Your task to perform on an android device: turn pop-ups off in chrome Image 0: 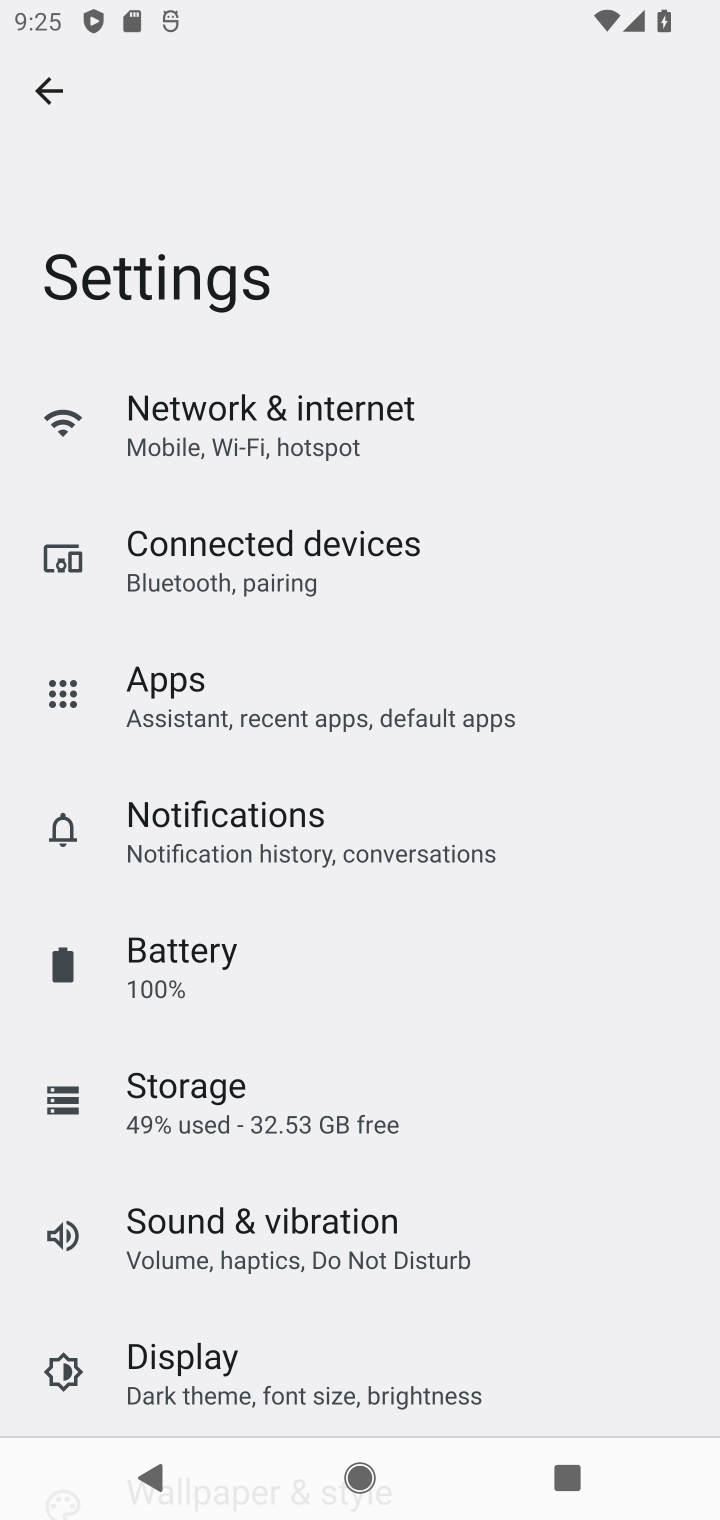
Step 0: press home button
Your task to perform on an android device: turn pop-ups off in chrome Image 1: 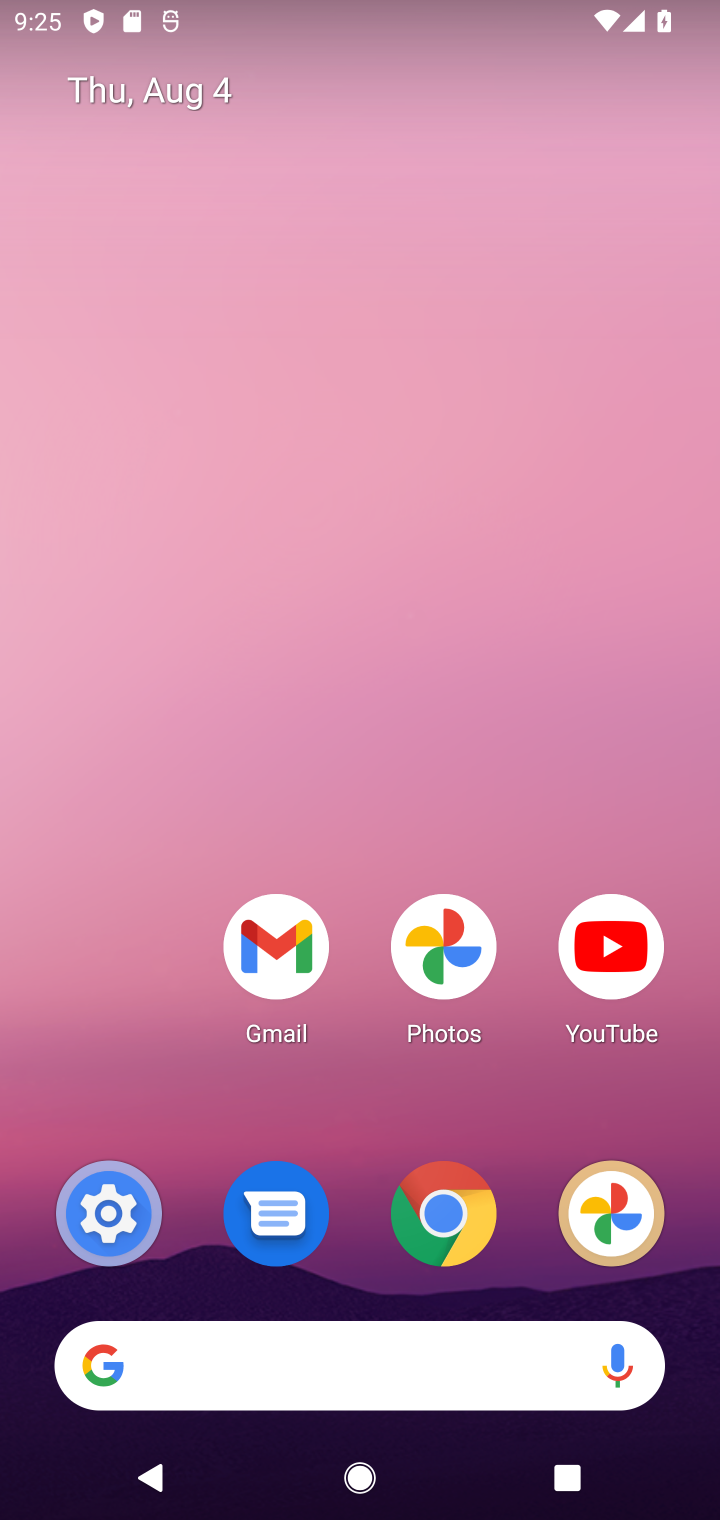
Step 1: click (448, 1207)
Your task to perform on an android device: turn pop-ups off in chrome Image 2: 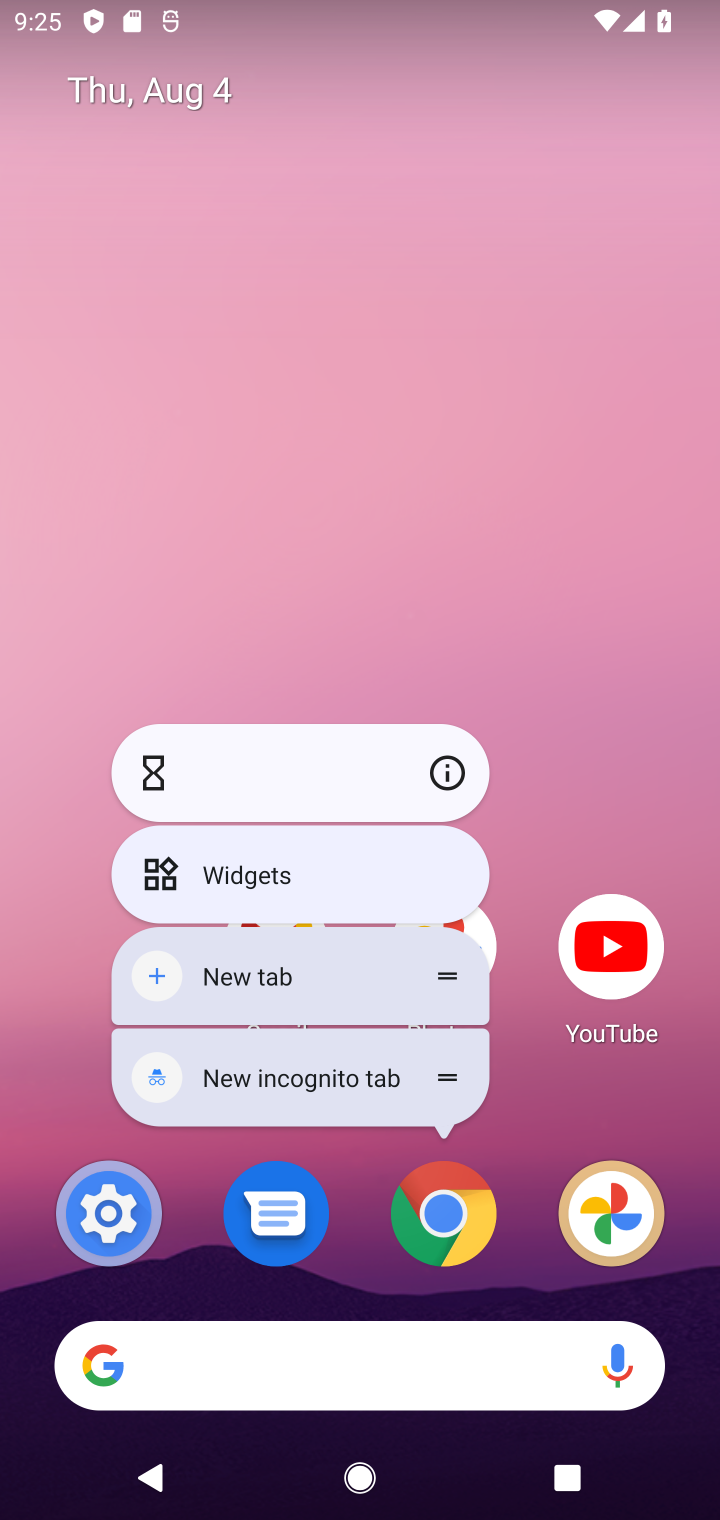
Step 2: click (439, 1204)
Your task to perform on an android device: turn pop-ups off in chrome Image 3: 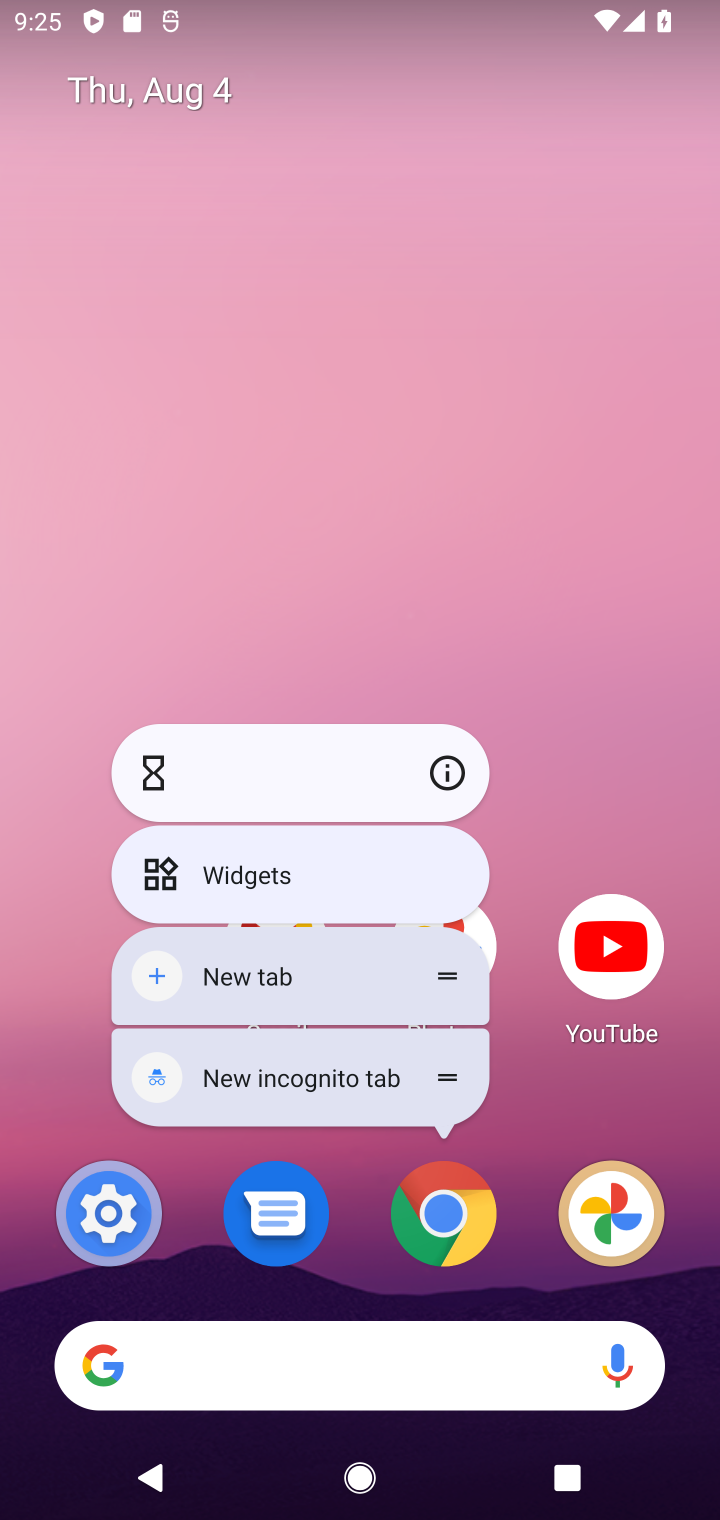
Step 3: click (439, 1204)
Your task to perform on an android device: turn pop-ups off in chrome Image 4: 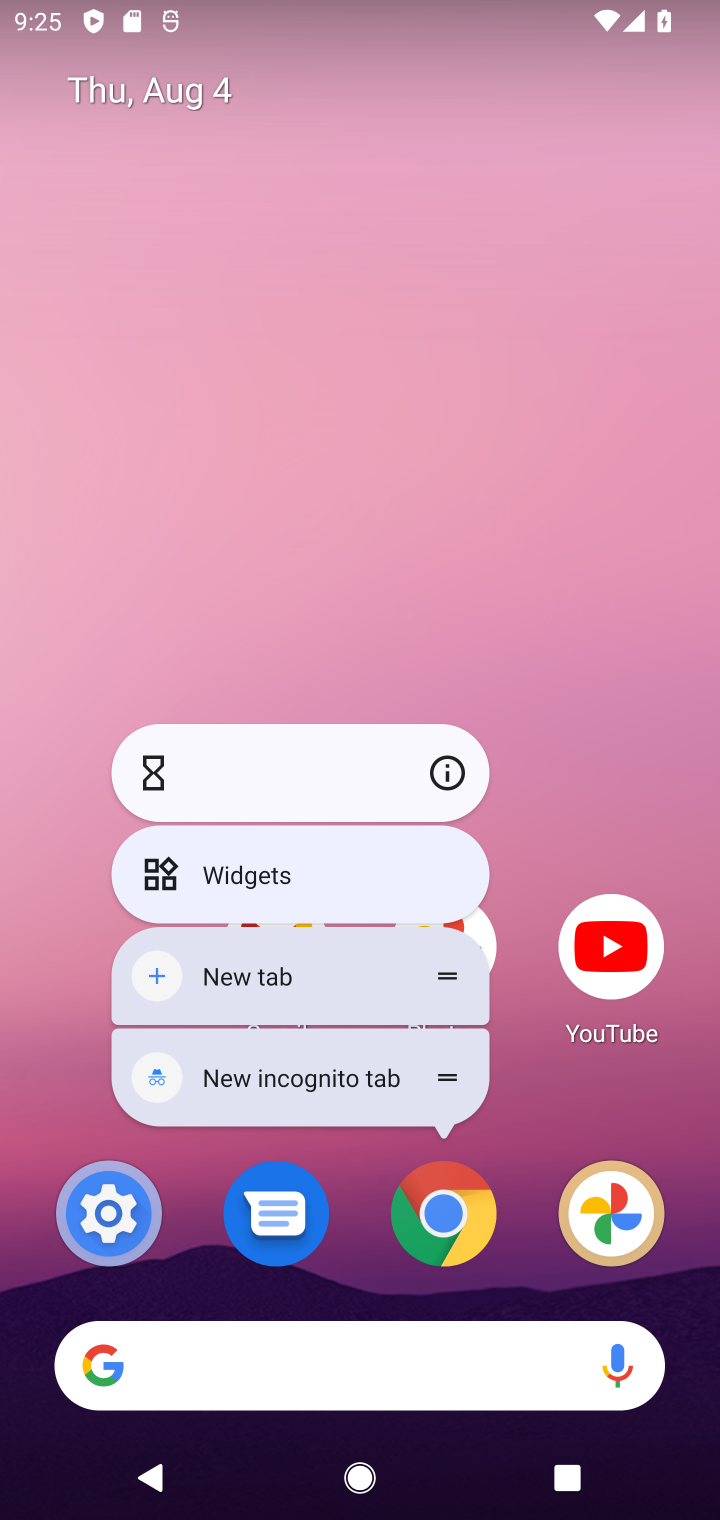
Step 4: click (439, 1198)
Your task to perform on an android device: turn pop-ups off in chrome Image 5: 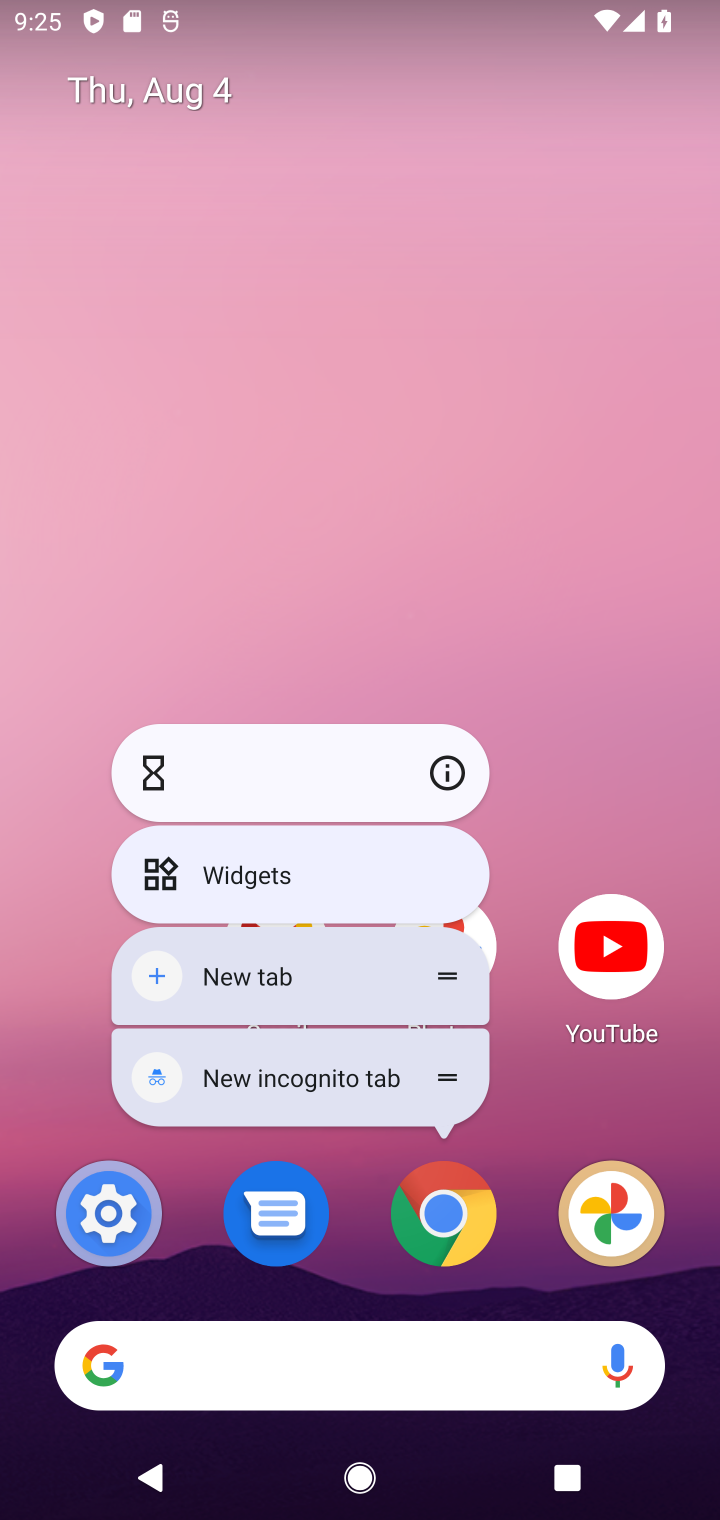
Step 5: click (454, 1199)
Your task to perform on an android device: turn pop-ups off in chrome Image 6: 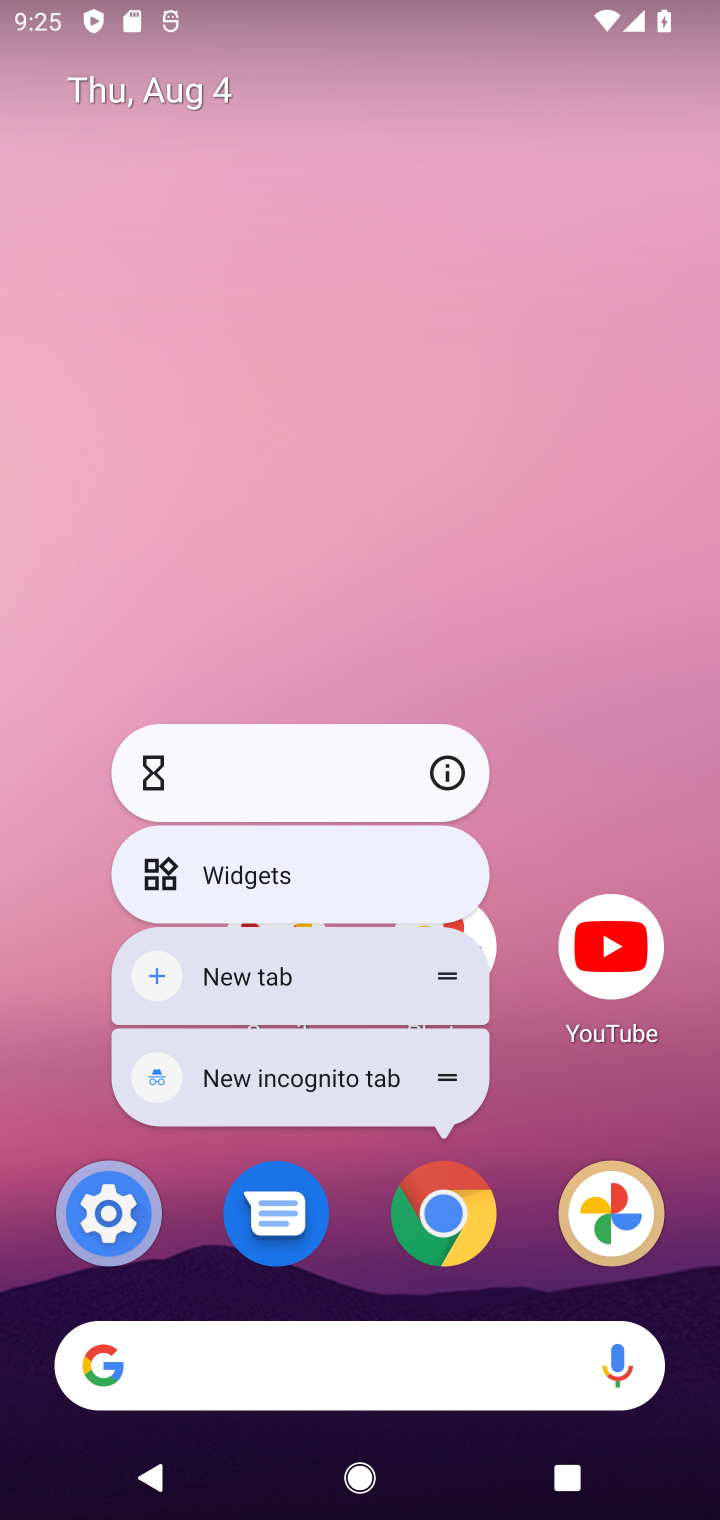
Step 6: click (442, 1218)
Your task to perform on an android device: turn pop-ups off in chrome Image 7: 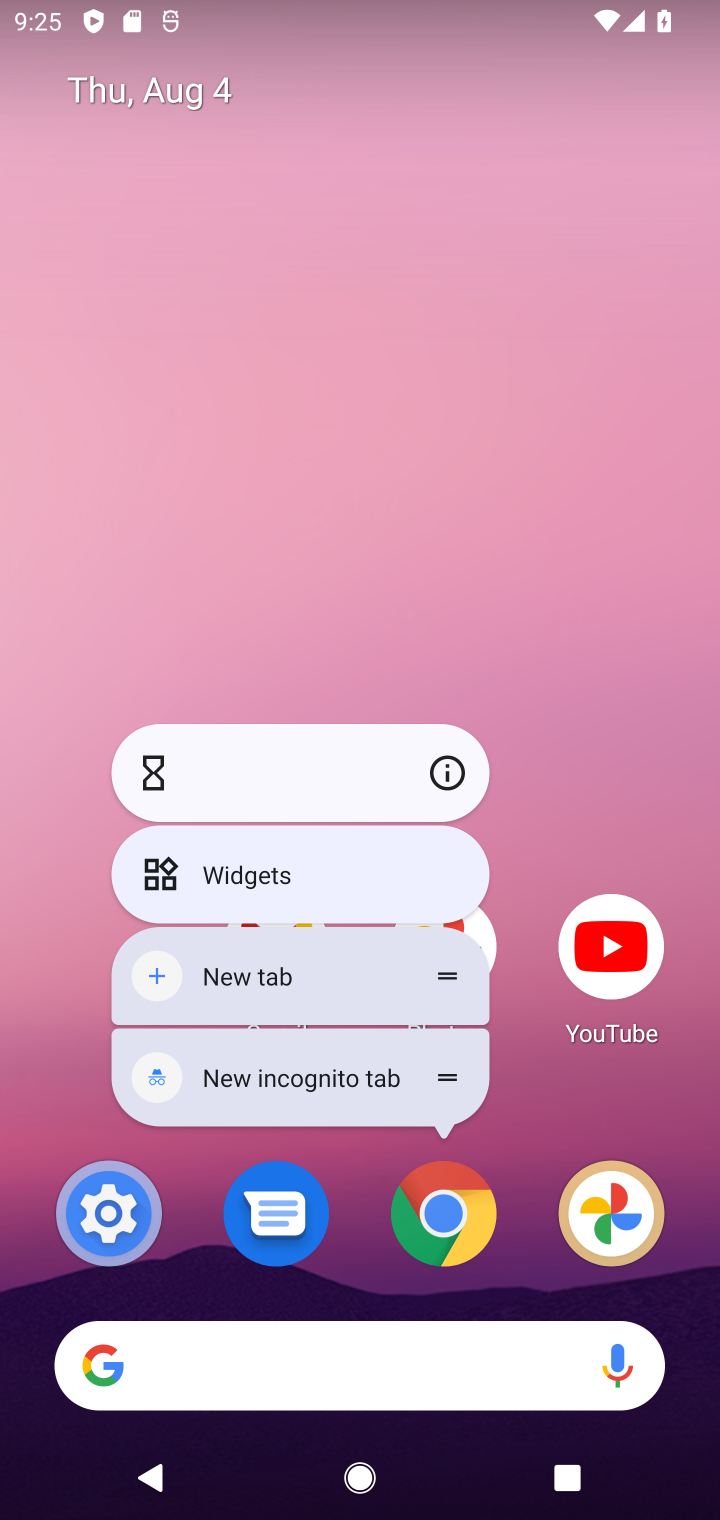
Step 7: drag from (522, 873) to (542, 10)
Your task to perform on an android device: turn pop-ups off in chrome Image 8: 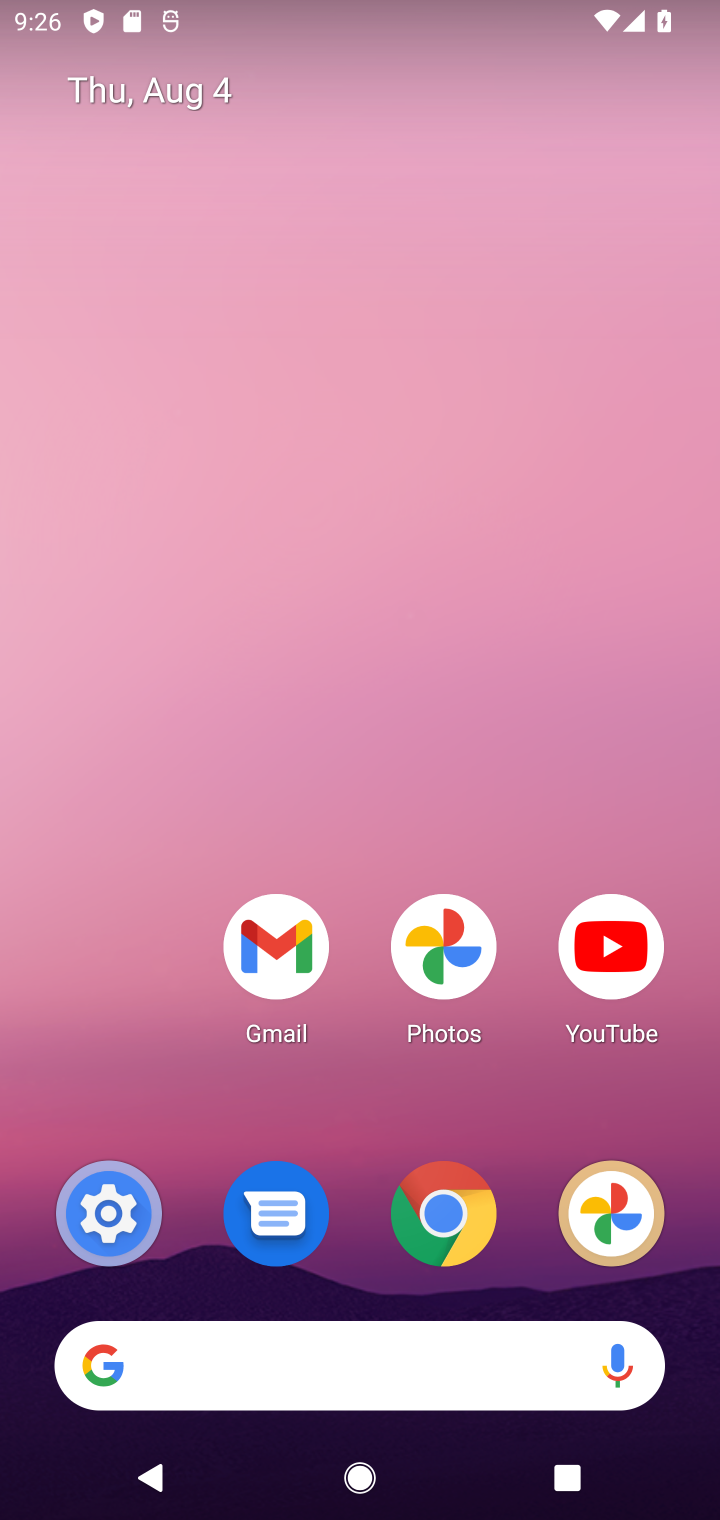
Step 8: drag from (519, 1075) to (490, 34)
Your task to perform on an android device: turn pop-ups off in chrome Image 9: 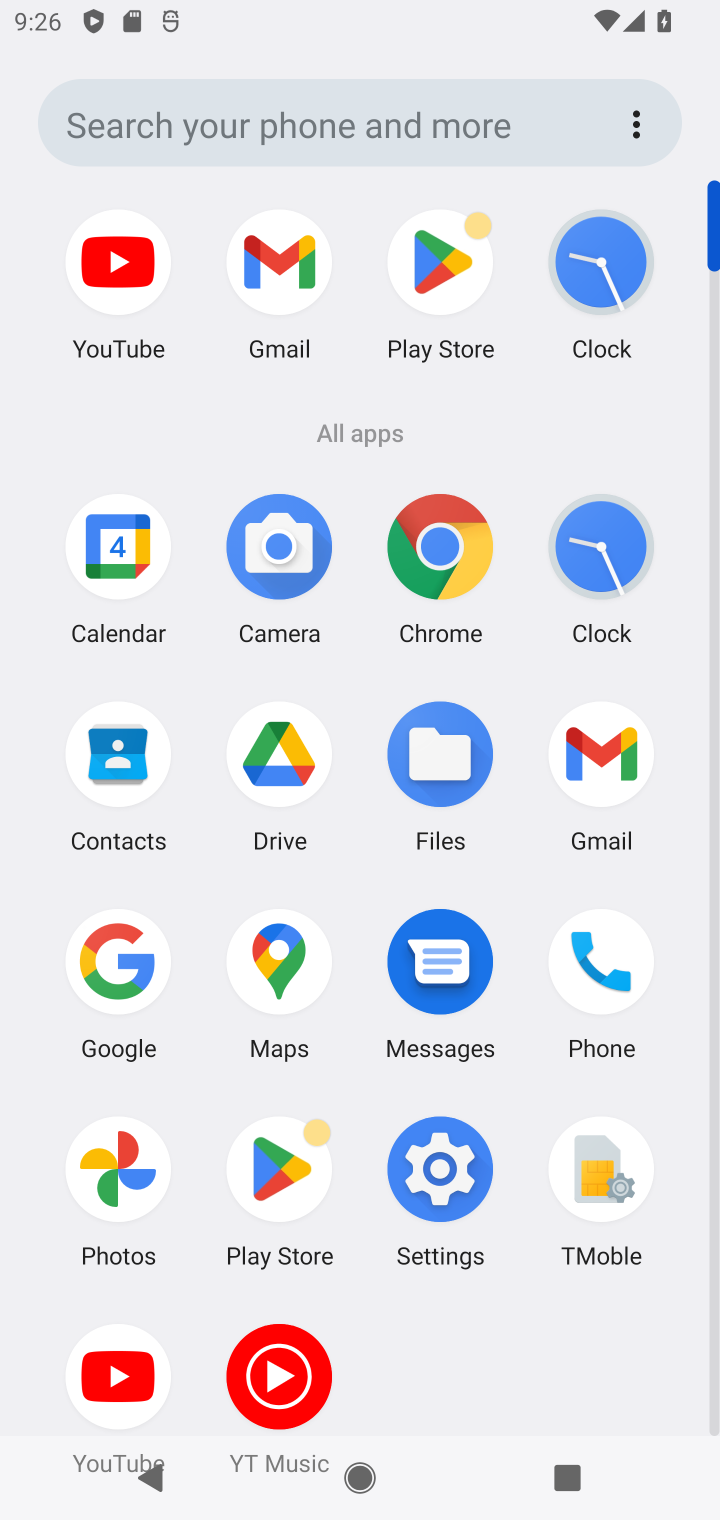
Step 9: click (436, 541)
Your task to perform on an android device: turn pop-ups off in chrome Image 10: 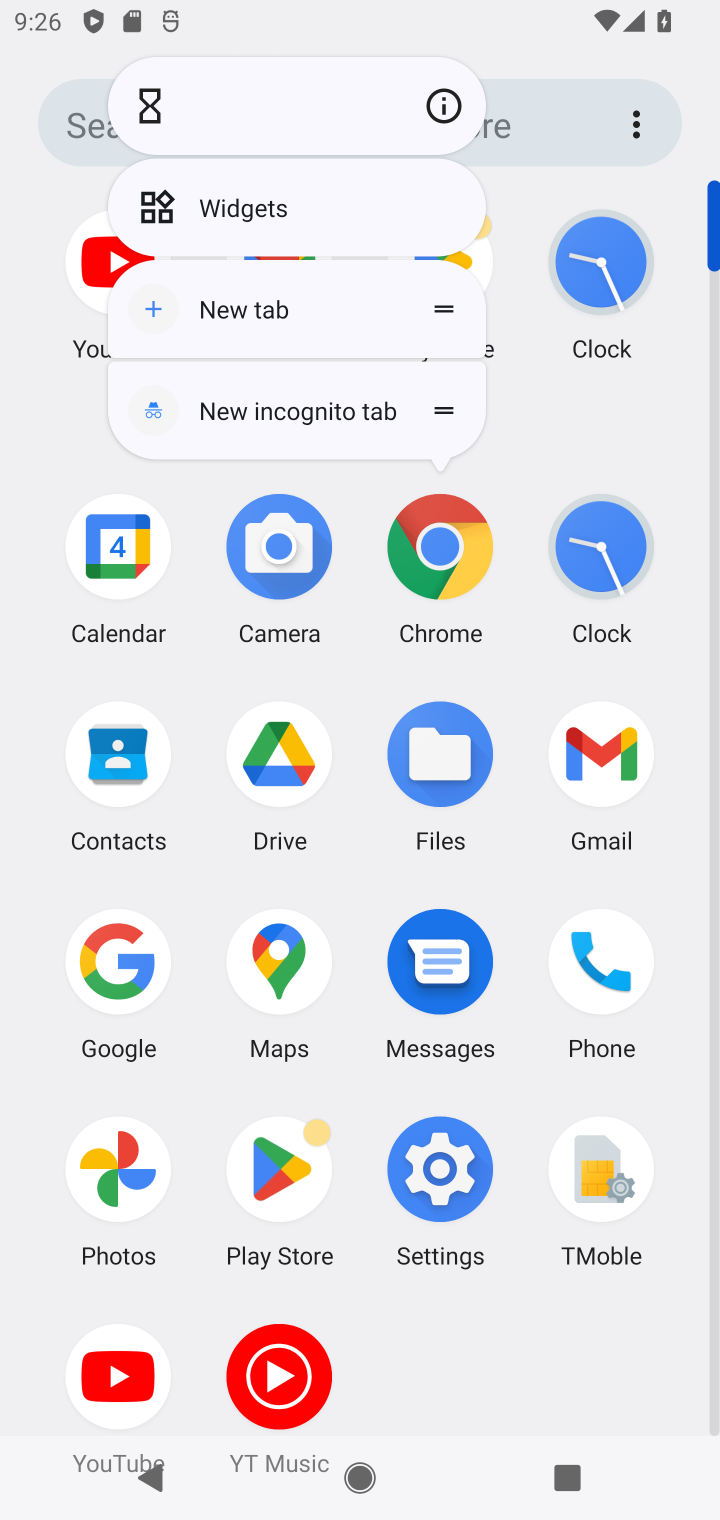
Step 10: click (440, 558)
Your task to perform on an android device: turn pop-ups off in chrome Image 11: 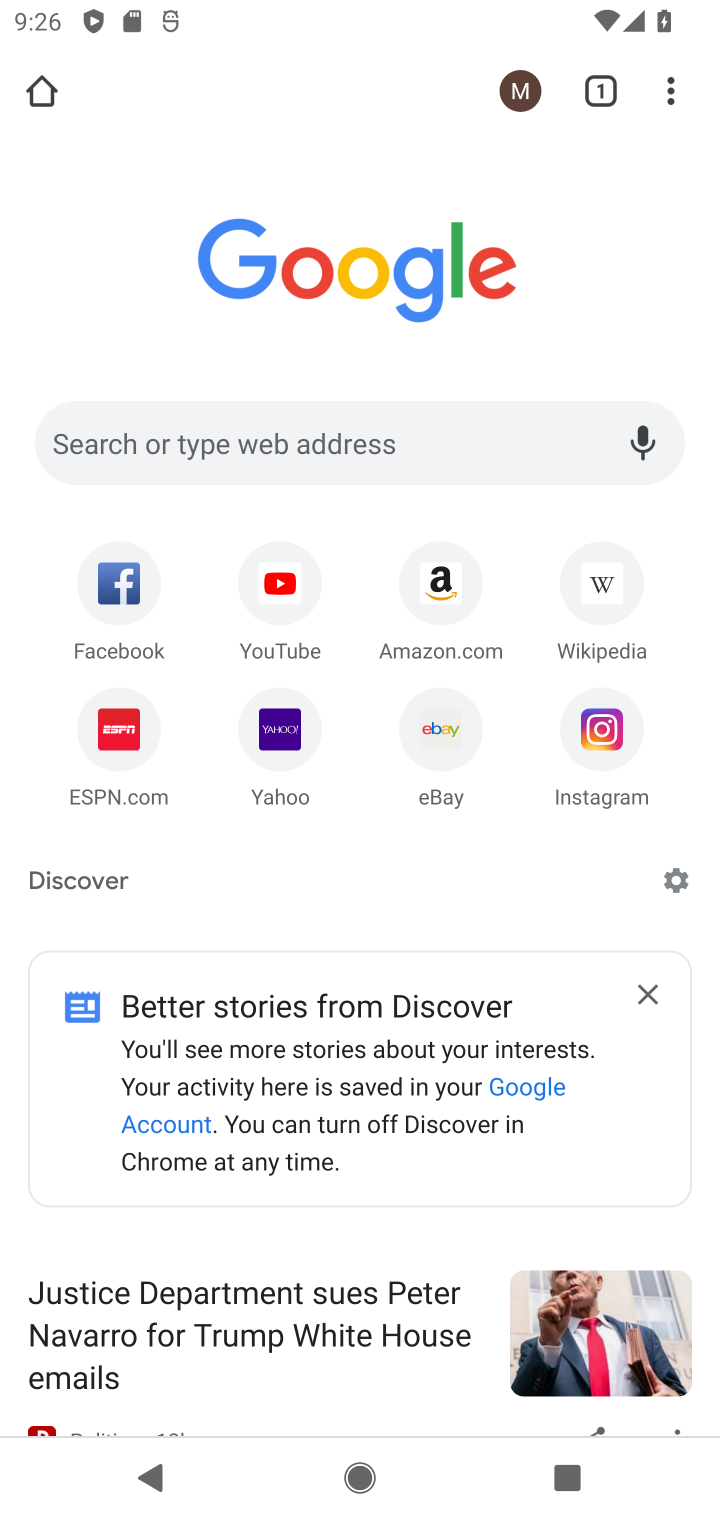
Step 11: click (665, 80)
Your task to perform on an android device: turn pop-ups off in chrome Image 12: 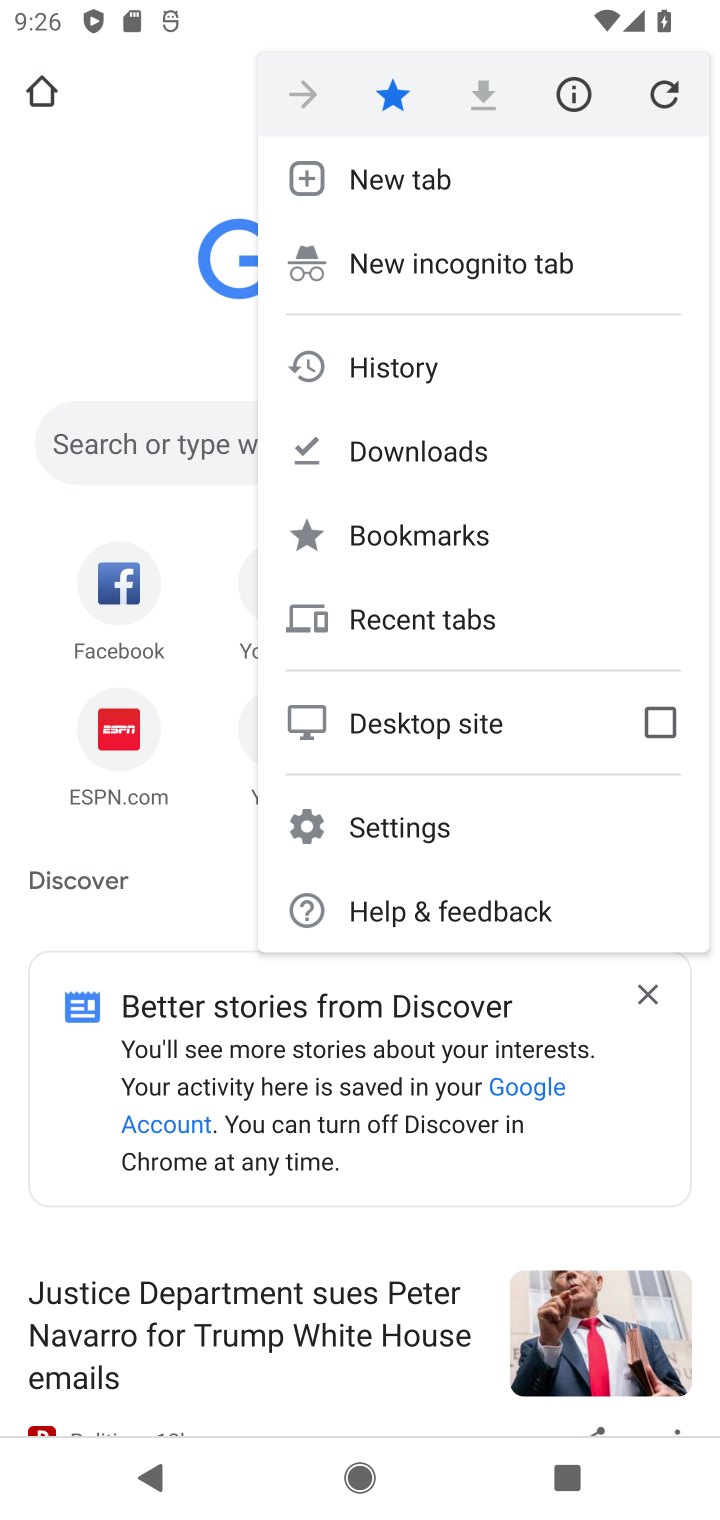
Step 12: click (467, 817)
Your task to perform on an android device: turn pop-ups off in chrome Image 13: 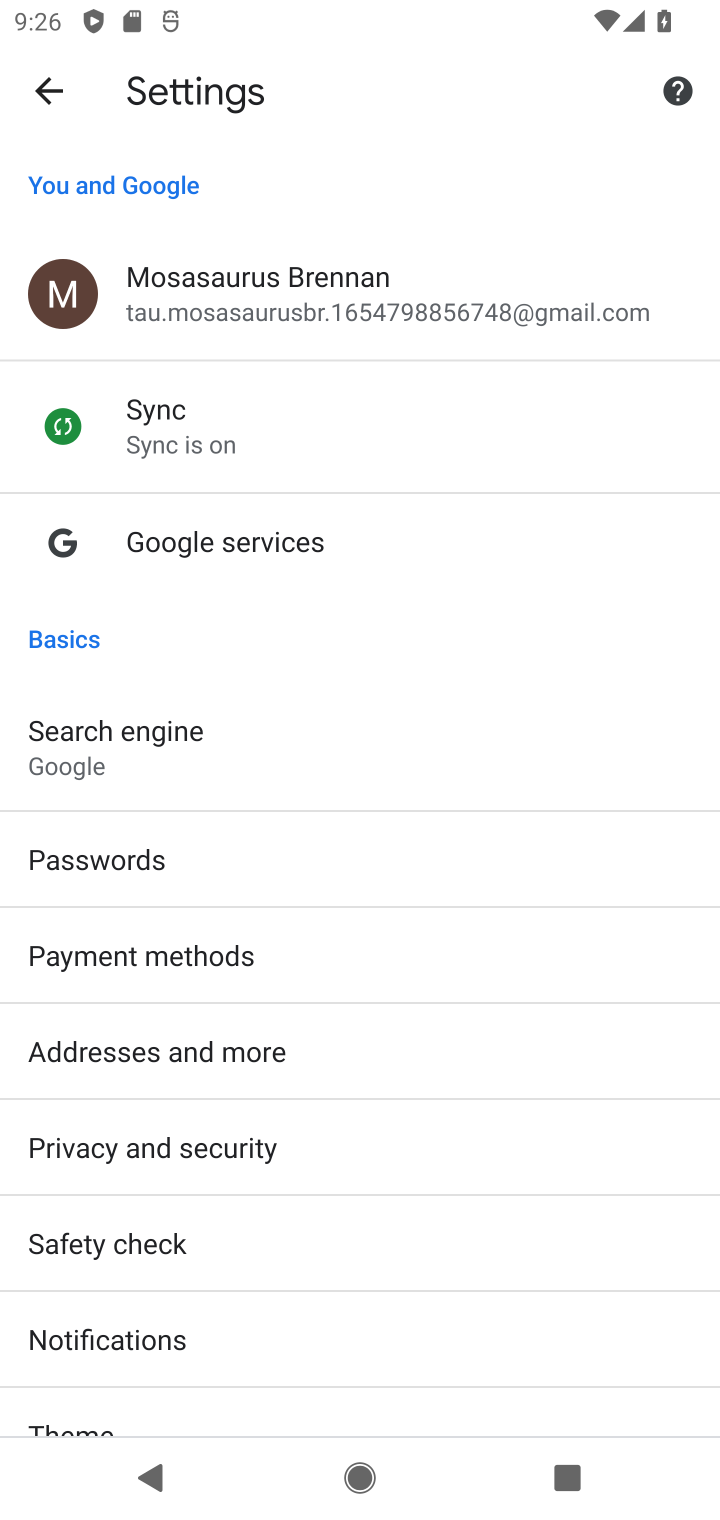
Step 13: drag from (241, 1317) to (334, 441)
Your task to perform on an android device: turn pop-ups off in chrome Image 14: 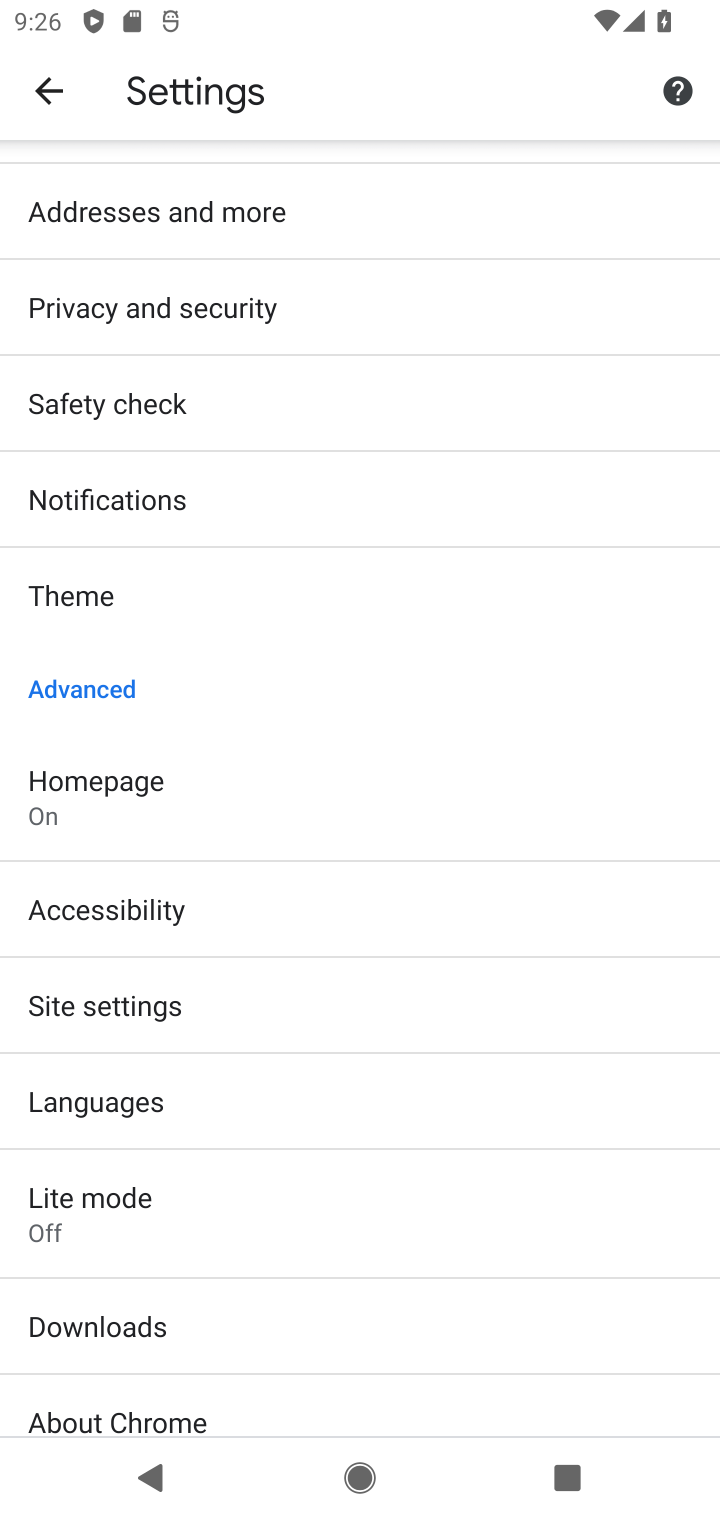
Step 14: click (221, 997)
Your task to perform on an android device: turn pop-ups off in chrome Image 15: 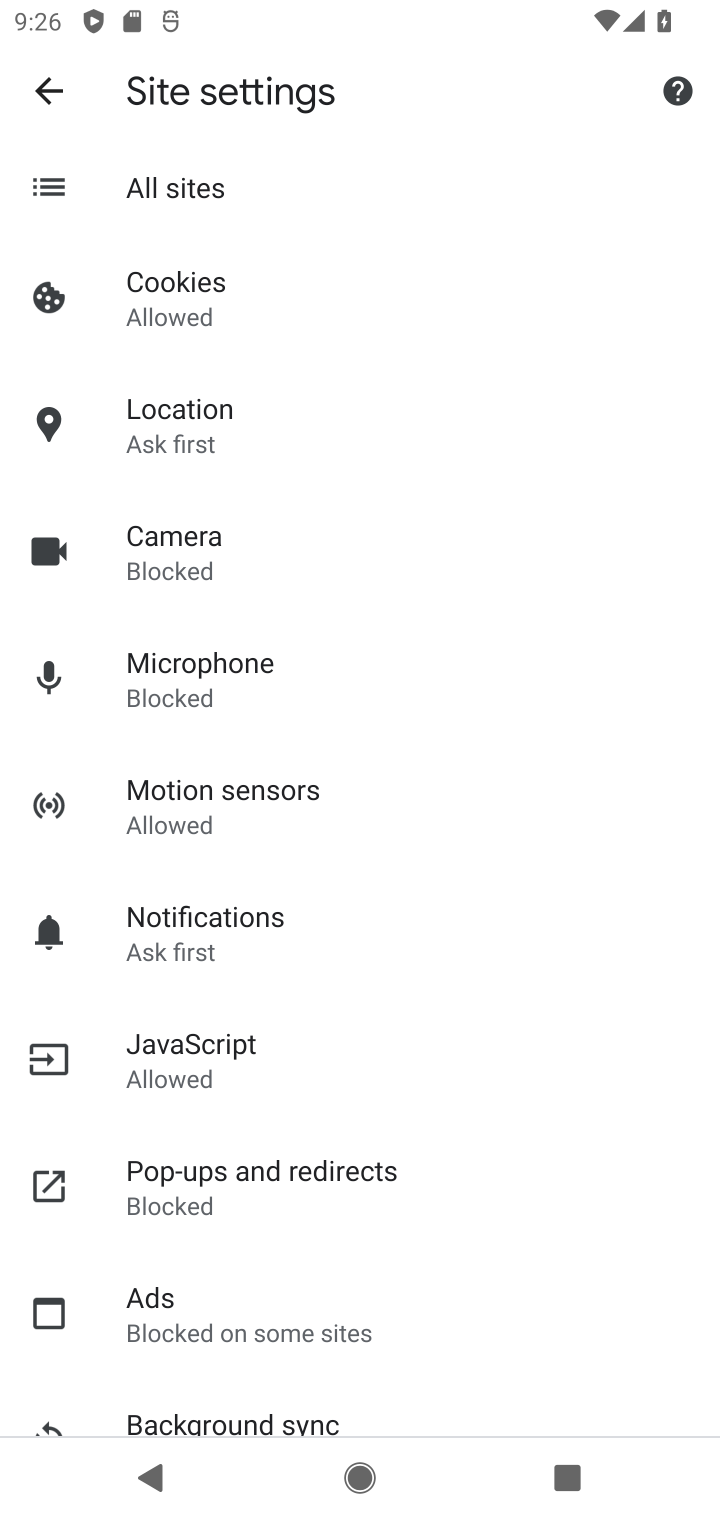
Step 15: click (266, 1186)
Your task to perform on an android device: turn pop-ups off in chrome Image 16: 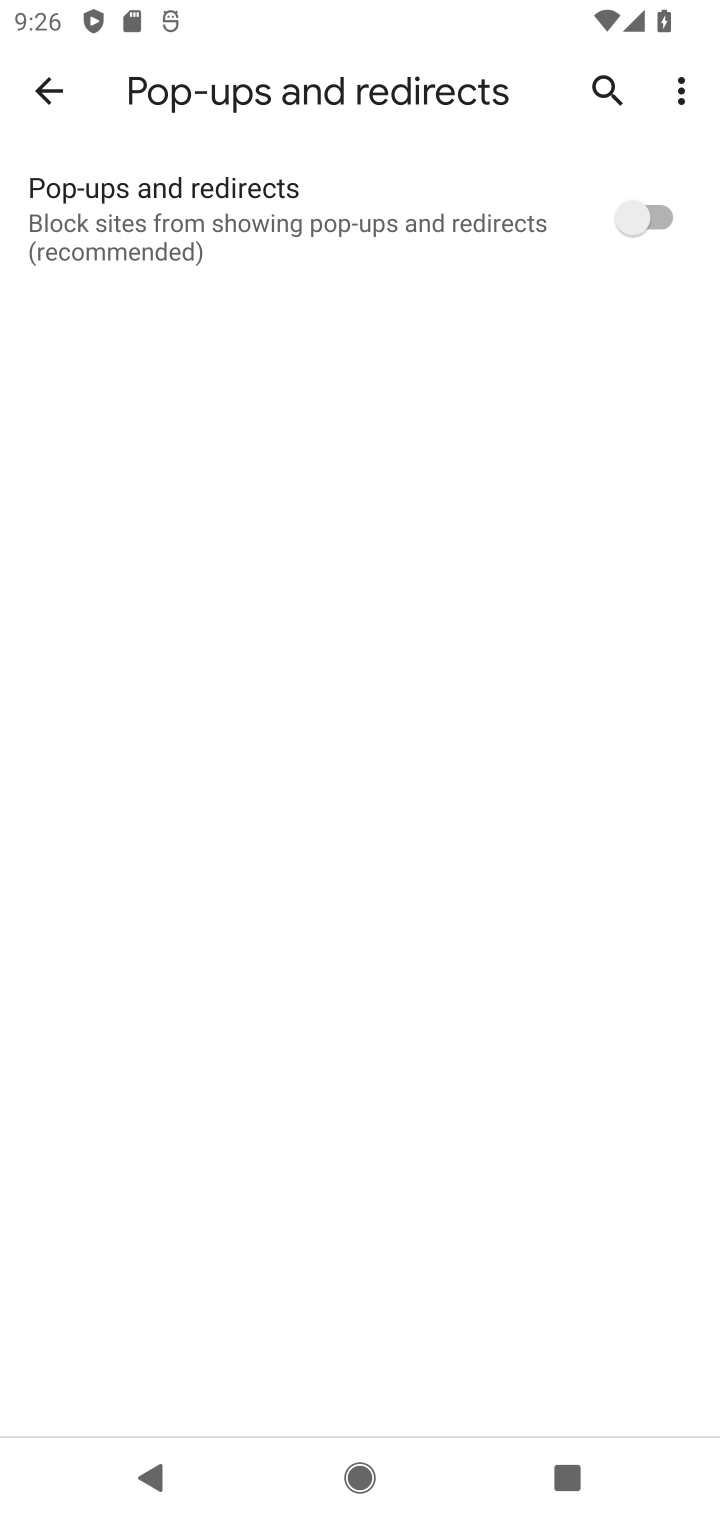
Step 16: task complete